Your task to perform on an android device: change the clock display to digital Image 0: 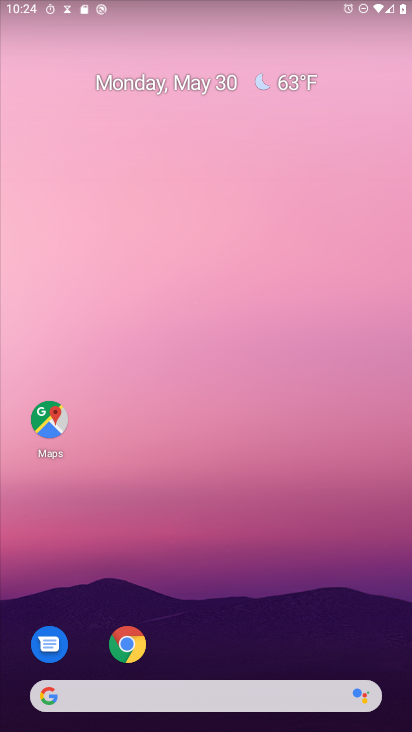
Step 0: drag from (205, 622) to (233, 40)
Your task to perform on an android device: change the clock display to digital Image 1: 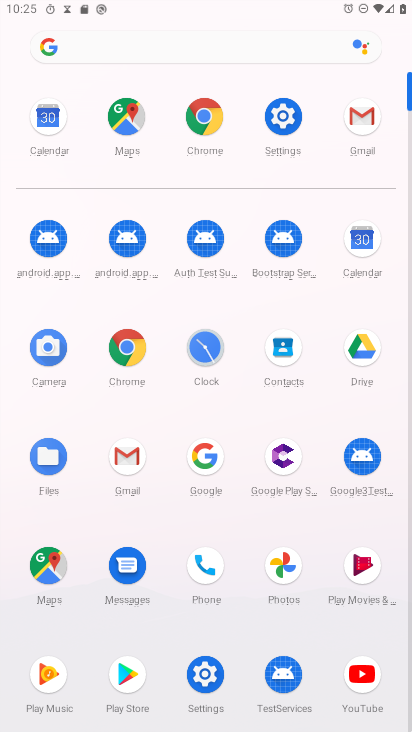
Step 1: click (206, 354)
Your task to perform on an android device: change the clock display to digital Image 2: 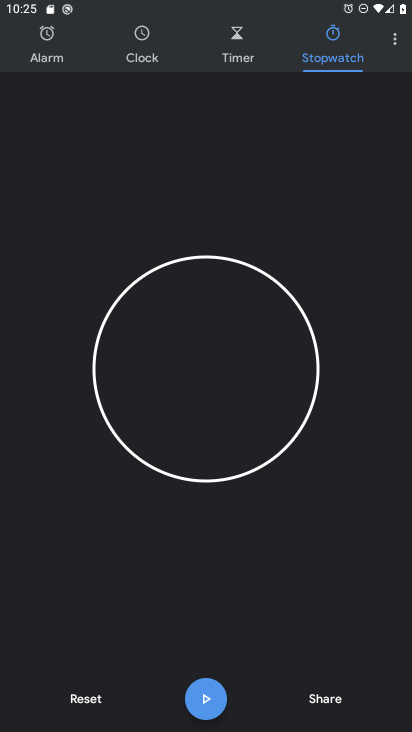
Step 2: click (390, 40)
Your task to perform on an android device: change the clock display to digital Image 3: 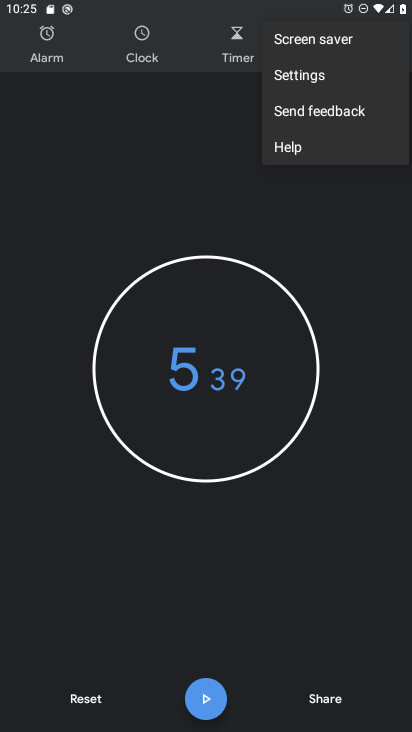
Step 3: click (318, 77)
Your task to perform on an android device: change the clock display to digital Image 4: 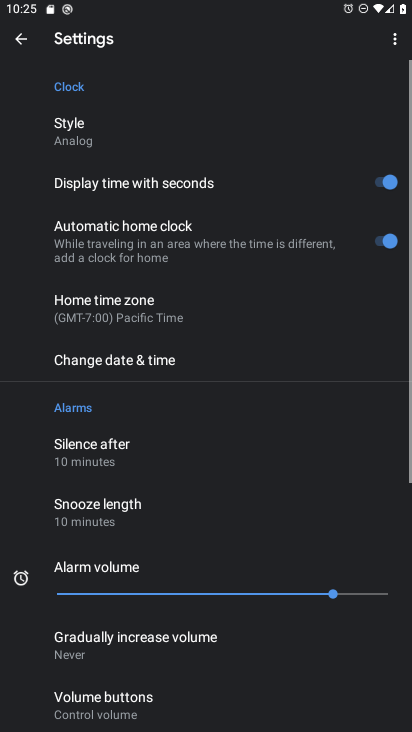
Step 4: click (120, 119)
Your task to perform on an android device: change the clock display to digital Image 5: 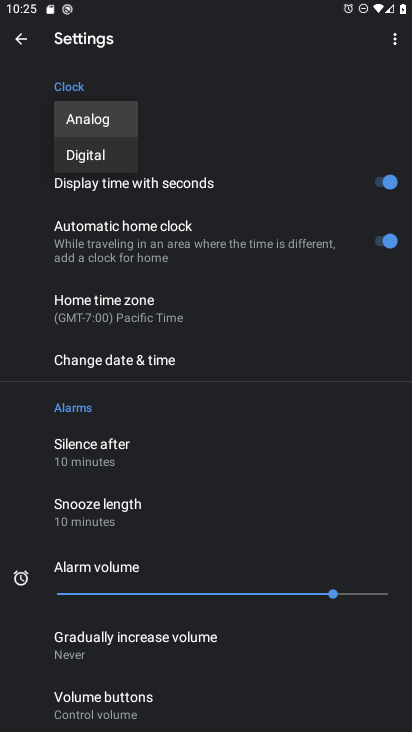
Step 5: click (90, 153)
Your task to perform on an android device: change the clock display to digital Image 6: 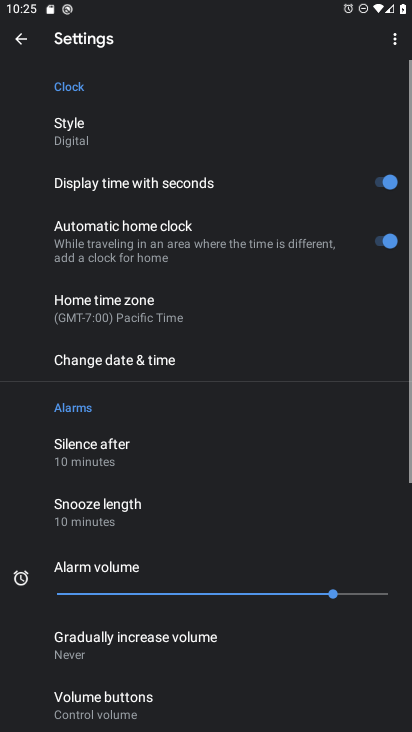
Step 6: task complete